Your task to perform on an android device: set the stopwatch Image 0: 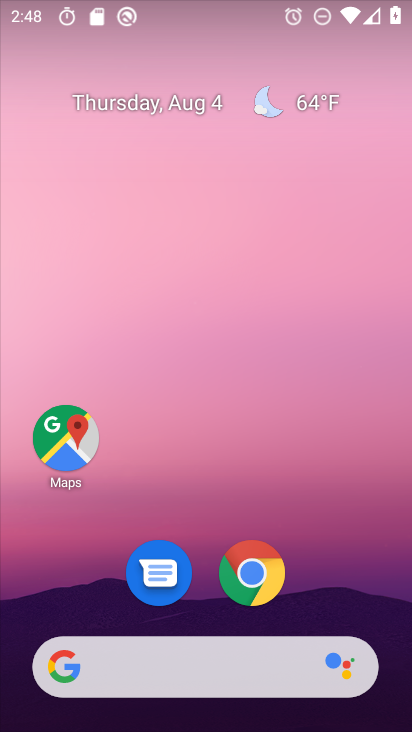
Step 0: drag from (332, 464) to (345, 19)
Your task to perform on an android device: set the stopwatch Image 1: 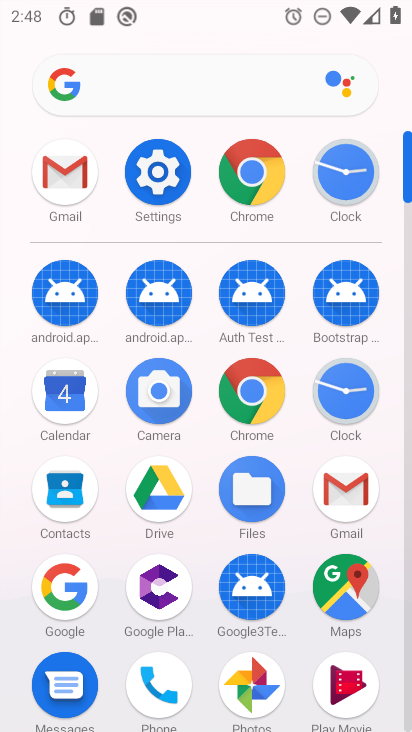
Step 1: click (349, 389)
Your task to perform on an android device: set the stopwatch Image 2: 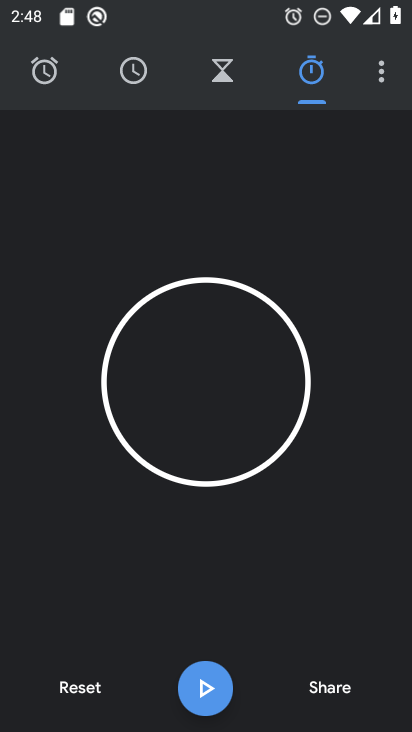
Step 2: task complete